Your task to perform on an android device: turn on notifications settings in the gmail app Image 0: 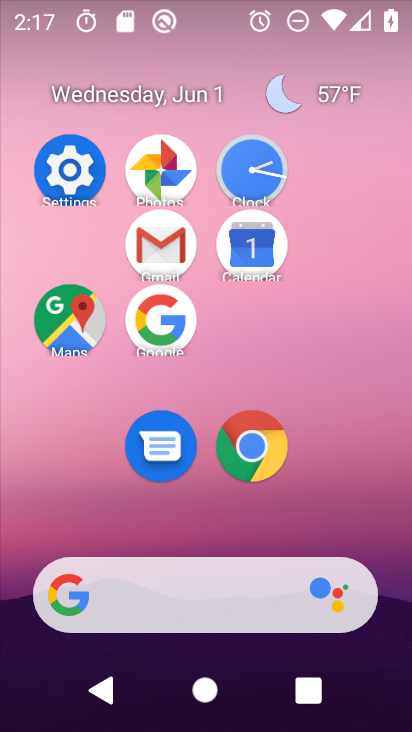
Step 0: click (144, 248)
Your task to perform on an android device: turn on notifications settings in the gmail app Image 1: 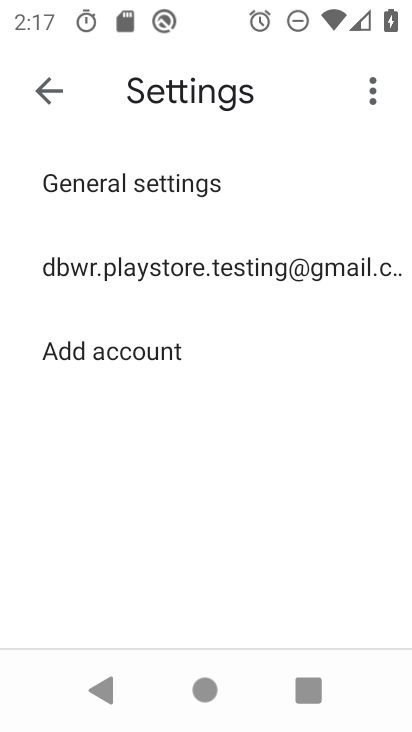
Step 1: click (95, 260)
Your task to perform on an android device: turn on notifications settings in the gmail app Image 2: 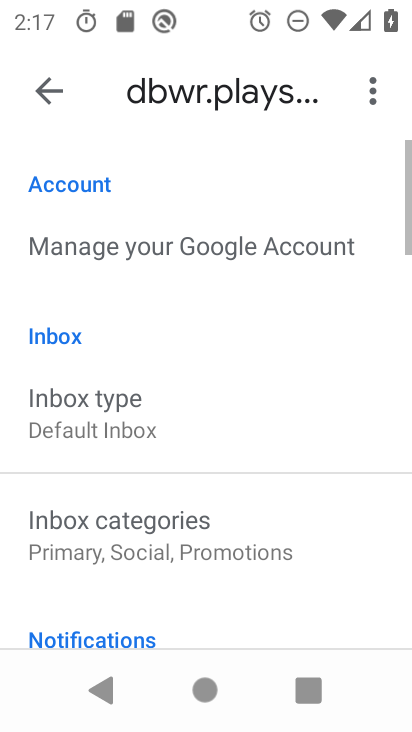
Step 2: drag from (161, 498) to (179, 194)
Your task to perform on an android device: turn on notifications settings in the gmail app Image 3: 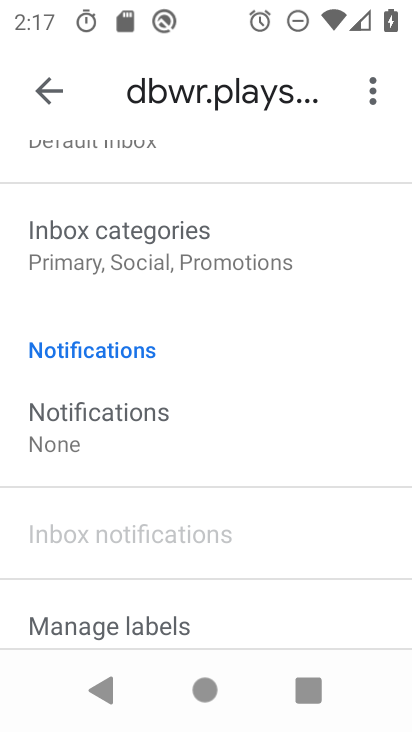
Step 3: click (168, 419)
Your task to perform on an android device: turn on notifications settings in the gmail app Image 4: 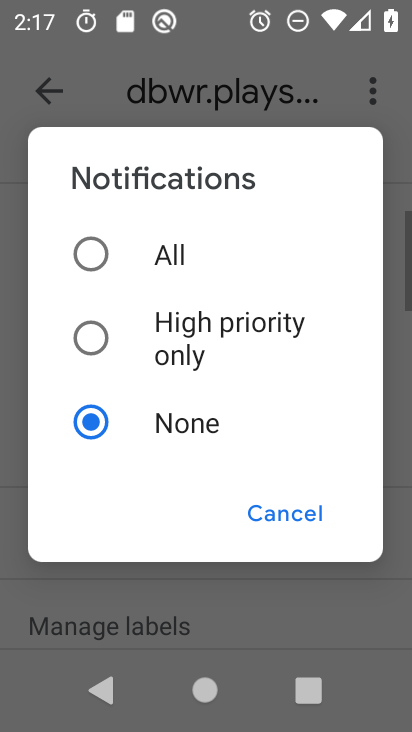
Step 4: click (186, 242)
Your task to perform on an android device: turn on notifications settings in the gmail app Image 5: 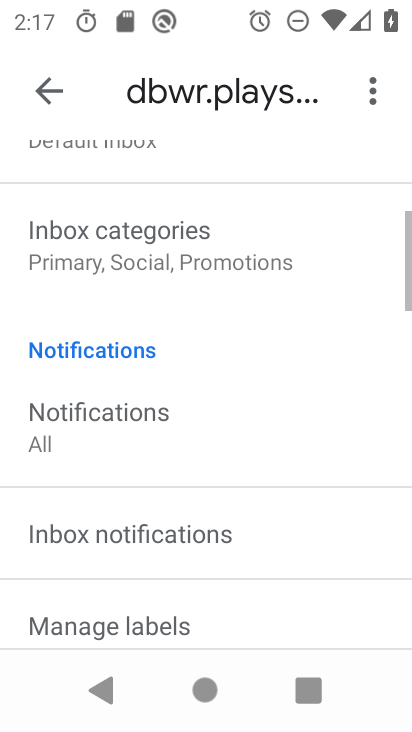
Step 5: task complete